Your task to perform on an android device: turn notification dots off Image 0: 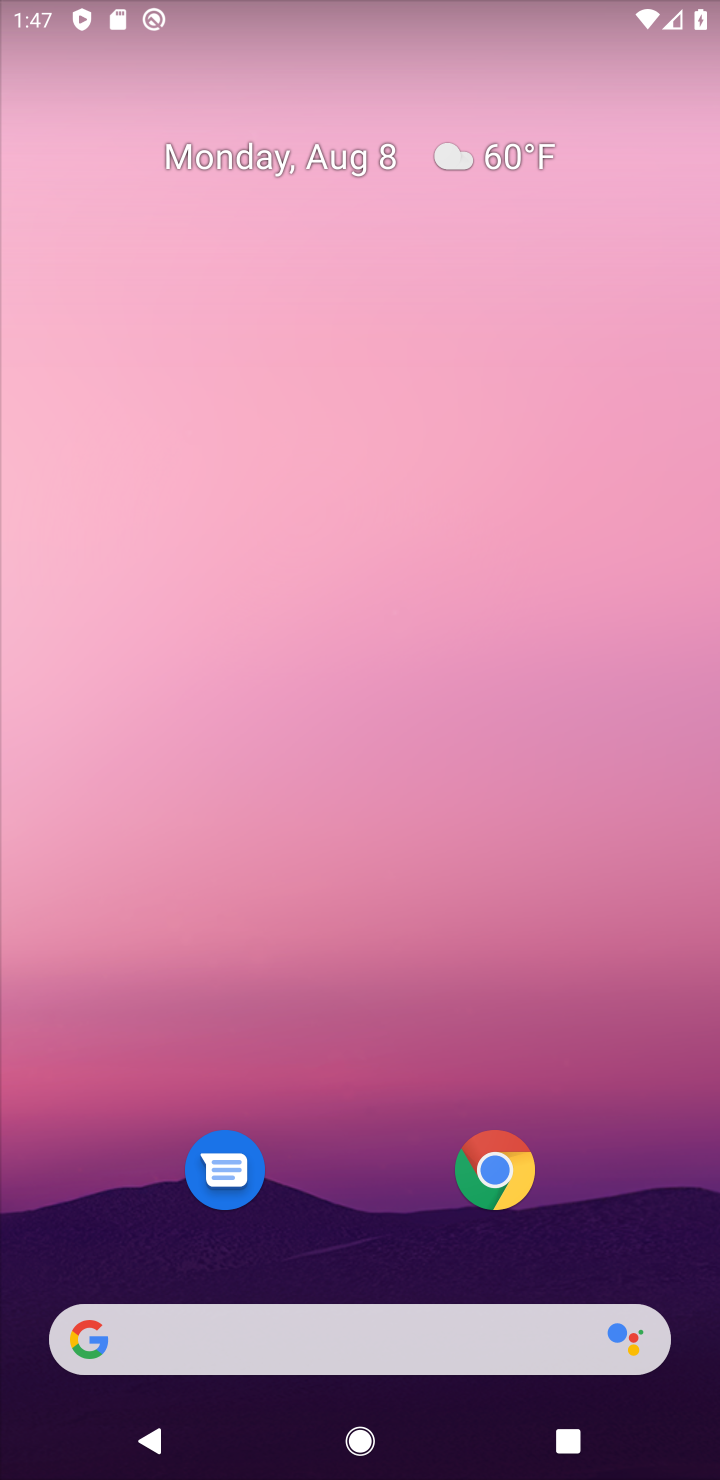
Step 0: drag from (49, 1393) to (34, 31)
Your task to perform on an android device: turn notification dots off Image 1: 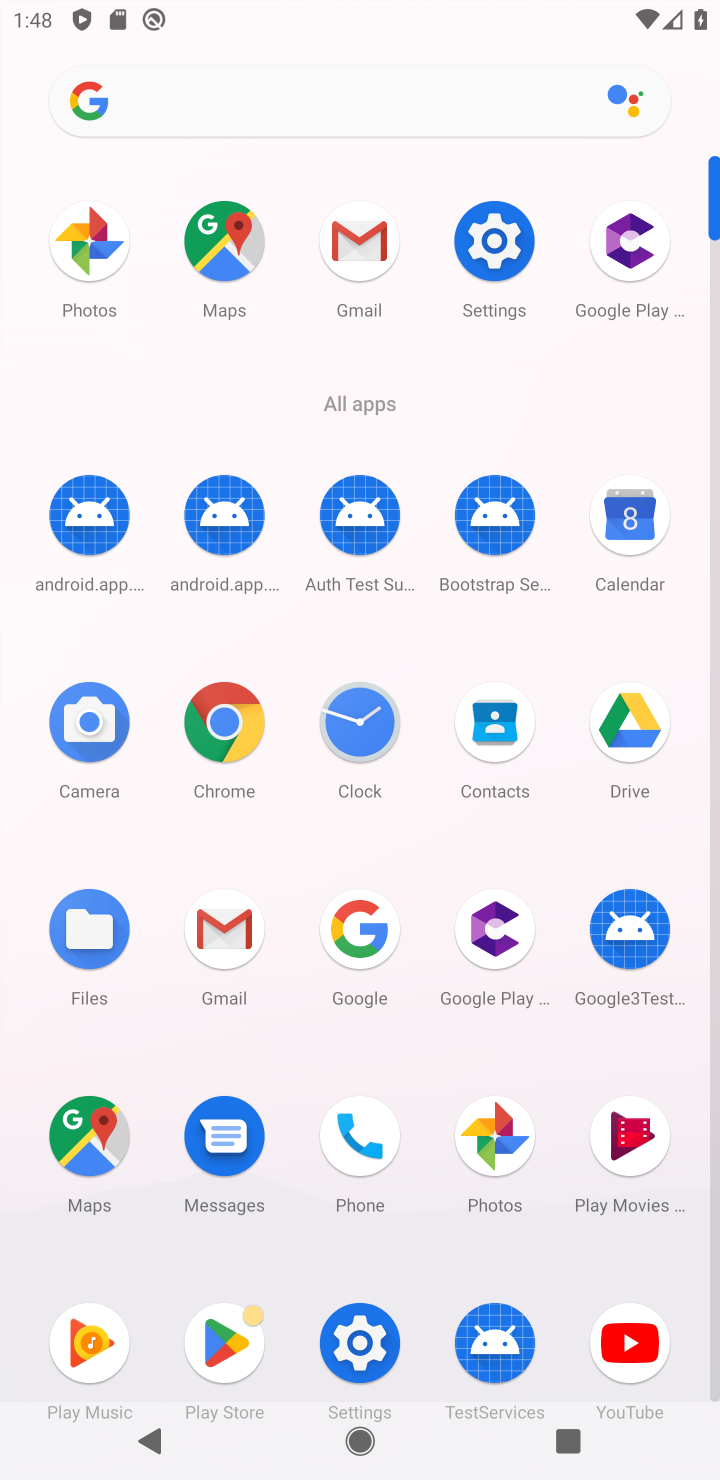
Step 1: click (353, 1326)
Your task to perform on an android device: turn notification dots off Image 2: 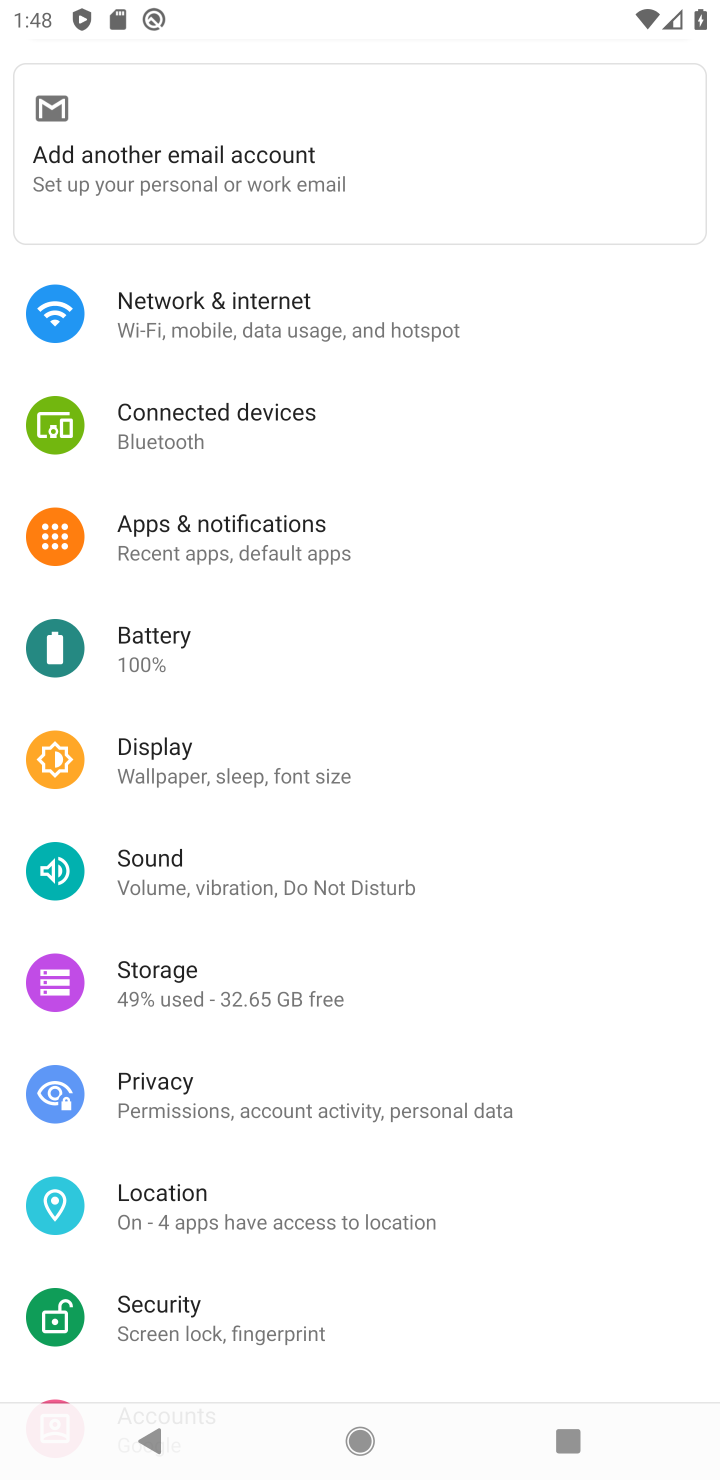
Step 2: click (269, 521)
Your task to perform on an android device: turn notification dots off Image 3: 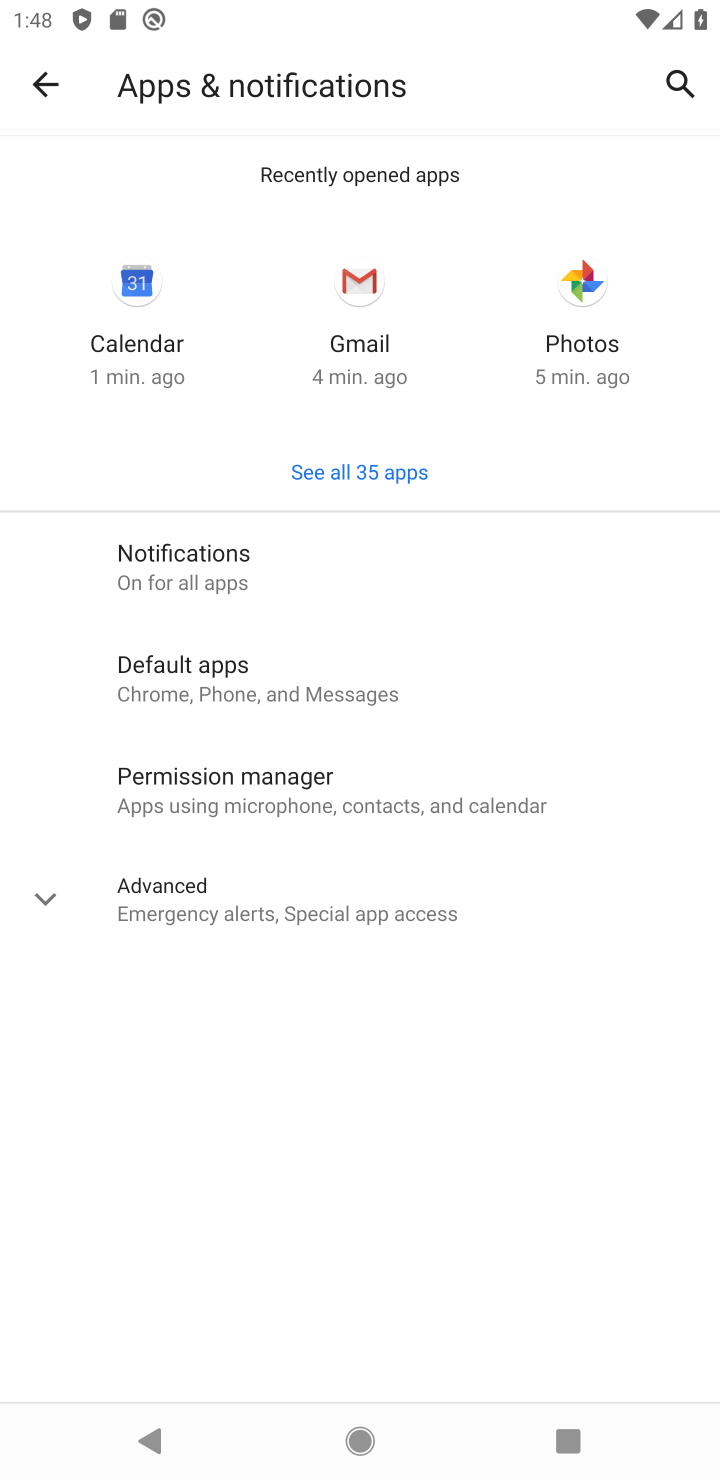
Step 3: click (172, 880)
Your task to perform on an android device: turn notification dots off Image 4: 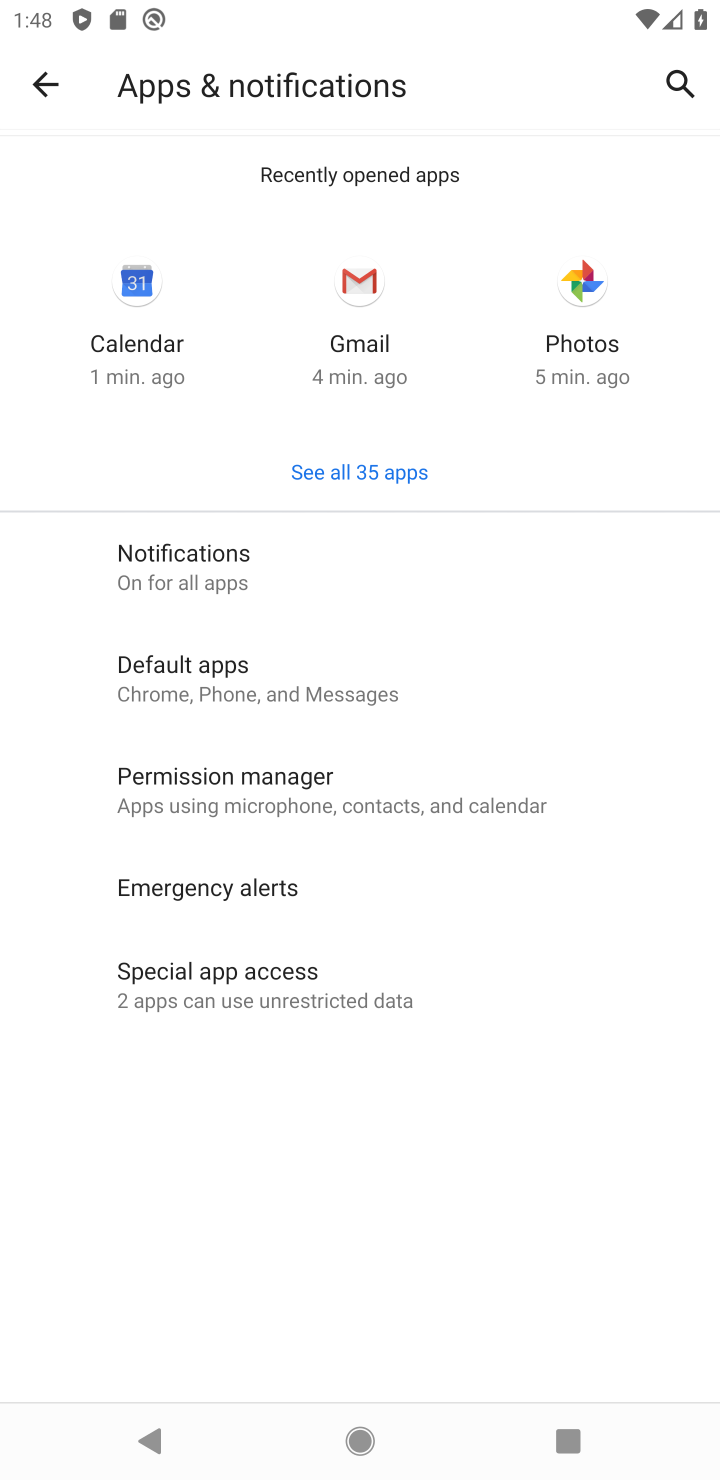
Step 4: click (205, 980)
Your task to perform on an android device: turn notification dots off Image 5: 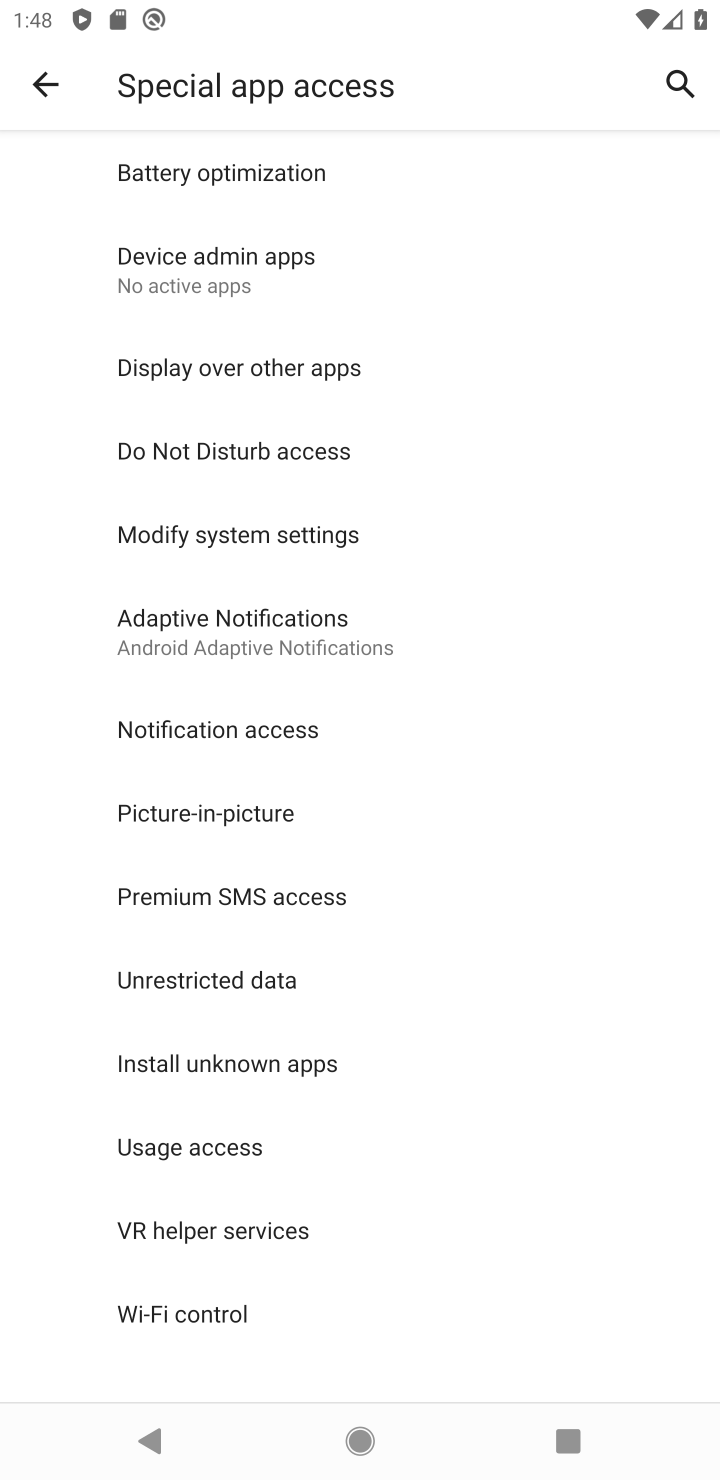
Step 5: task complete